Your task to perform on an android device: check data usage Image 0: 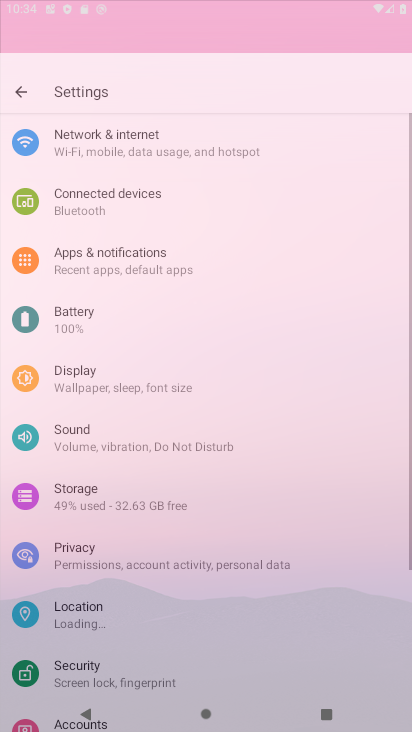
Step 0: press home button
Your task to perform on an android device: check data usage Image 1: 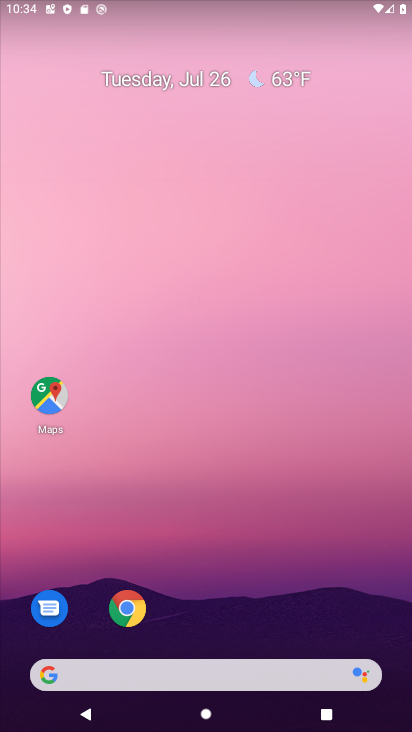
Step 1: drag from (225, 635) to (220, 205)
Your task to perform on an android device: check data usage Image 2: 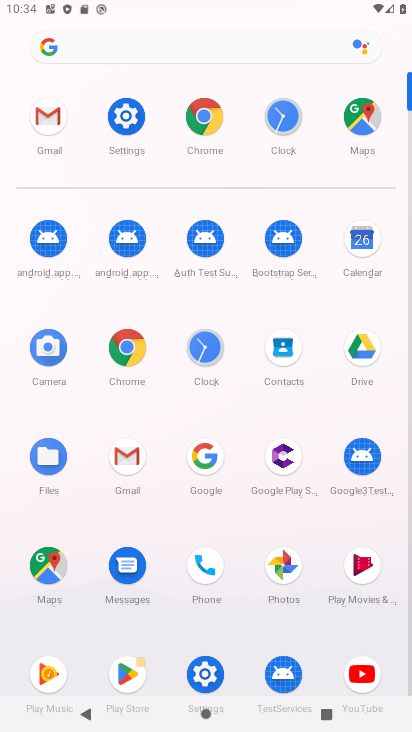
Step 2: click (117, 115)
Your task to perform on an android device: check data usage Image 3: 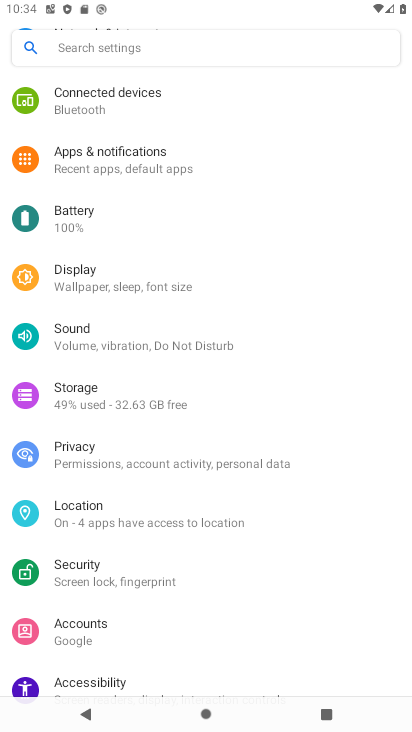
Step 3: drag from (270, 144) to (384, 673)
Your task to perform on an android device: check data usage Image 4: 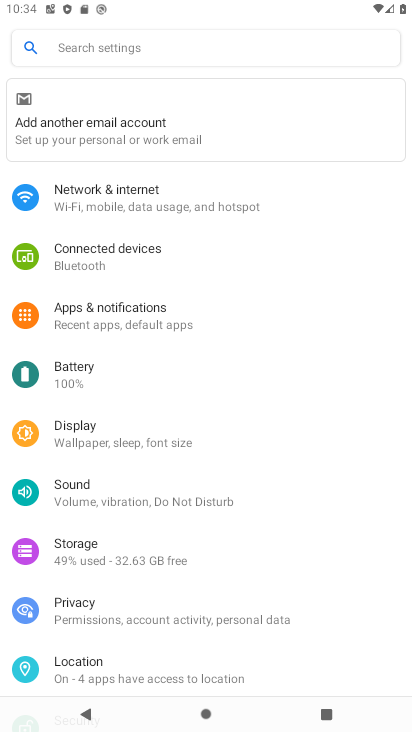
Step 4: click (124, 198)
Your task to perform on an android device: check data usage Image 5: 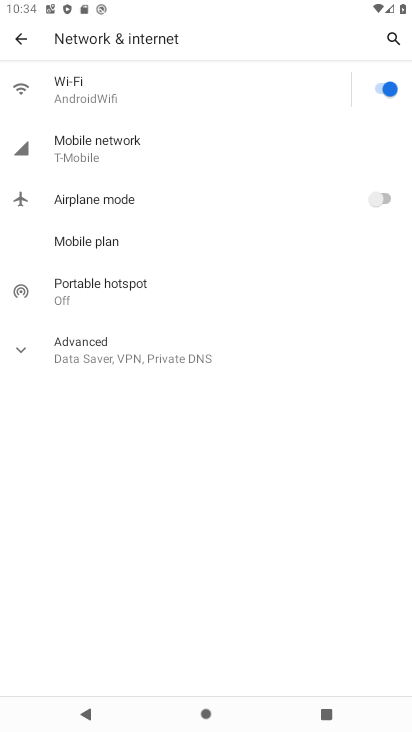
Step 5: click (95, 141)
Your task to perform on an android device: check data usage Image 6: 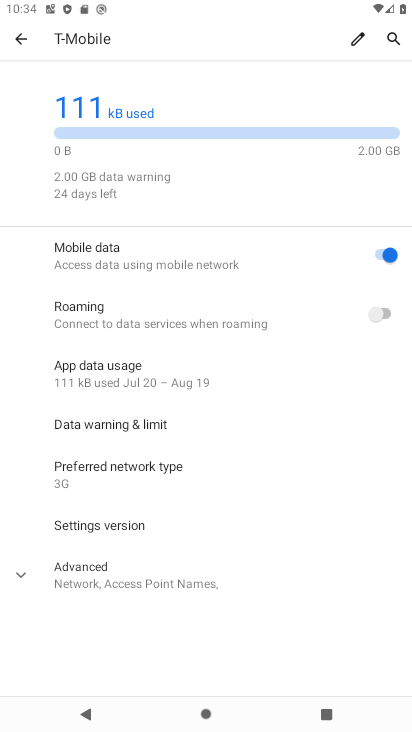
Step 6: click (113, 371)
Your task to perform on an android device: check data usage Image 7: 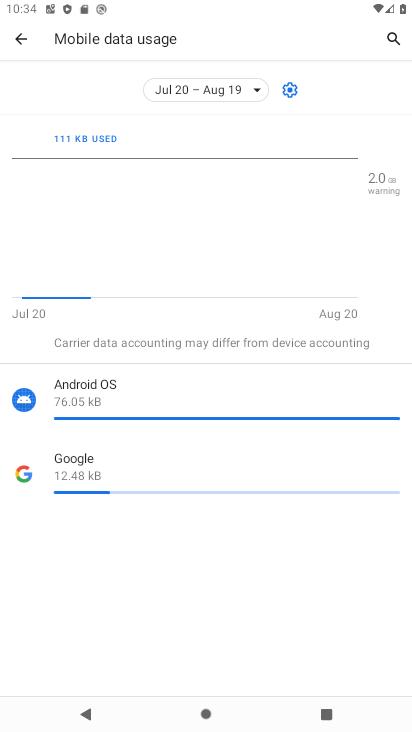
Step 7: task complete